Your task to perform on an android device: When is my next appointment? Image 0: 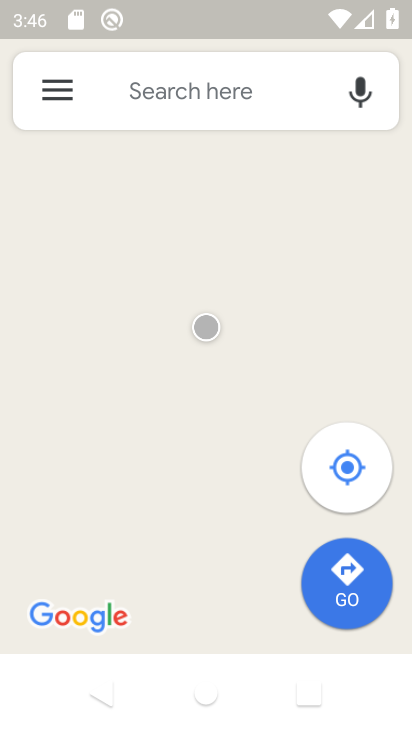
Step 0: press home button
Your task to perform on an android device: When is my next appointment? Image 1: 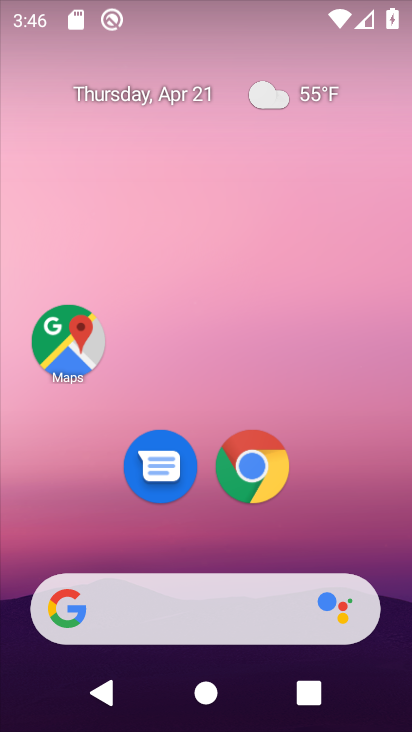
Step 1: drag from (211, 426) to (229, 92)
Your task to perform on an android device: When is my next appointment? Image 2: 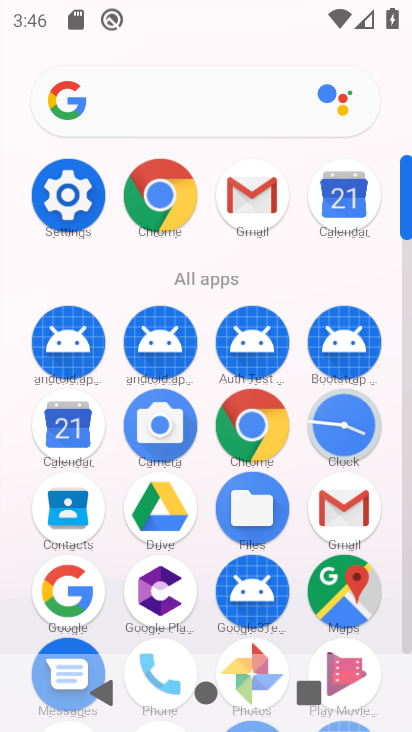
Step 2: click (73, 419)
Your task to perform on an android device: When is my next appointment? Image 3: 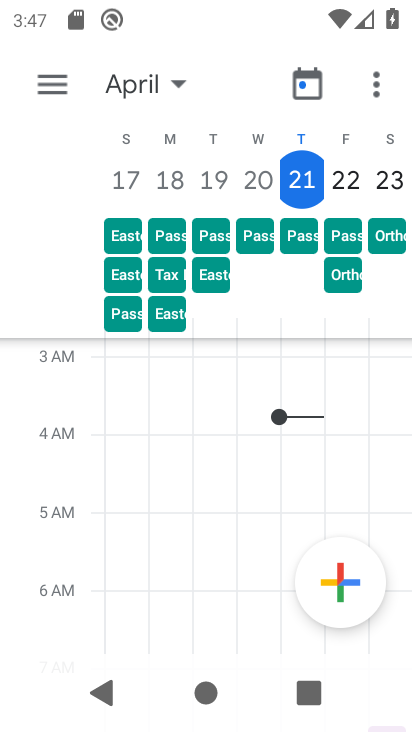
Step 3: click (62, 84)
Your task to perform on an android device: When is my next appointment? Image 4: 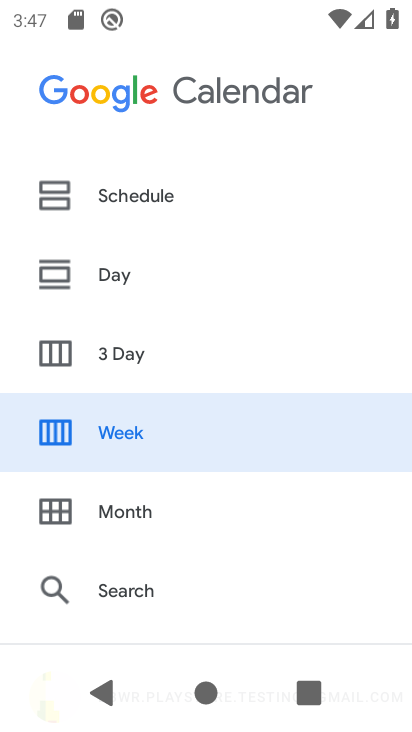
Step 4: click (146, 264)
Your task to perform on an android device: When is my next appointment? Image 5: 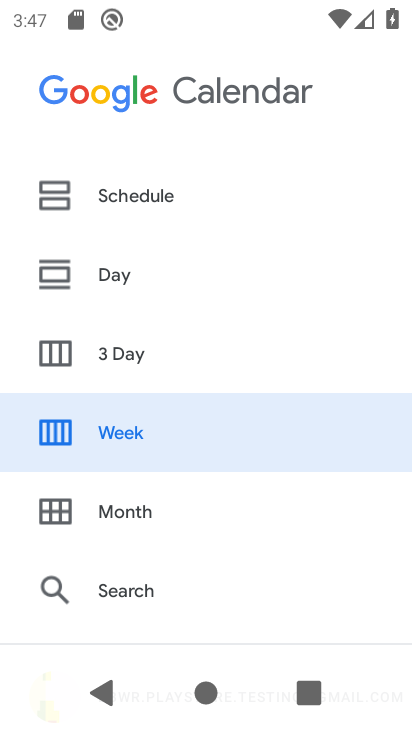
Step 5: click (95, 252)
Your task to perform on an android device: When is my next appointment? Image 6: 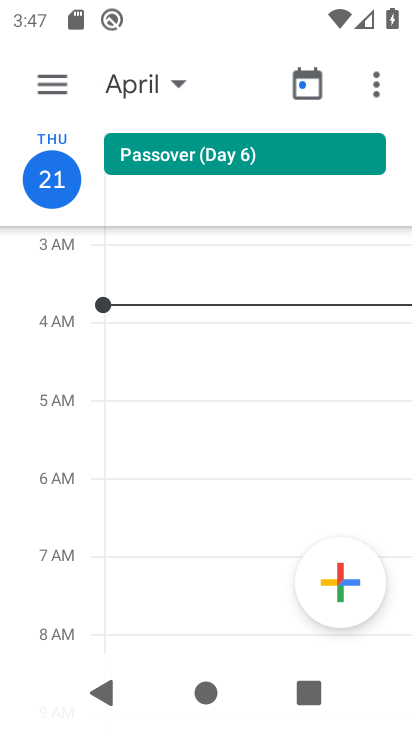
Step 6: task complete